Your task to perform on an android device: toggle notifications settings in the gmail app Image 0: 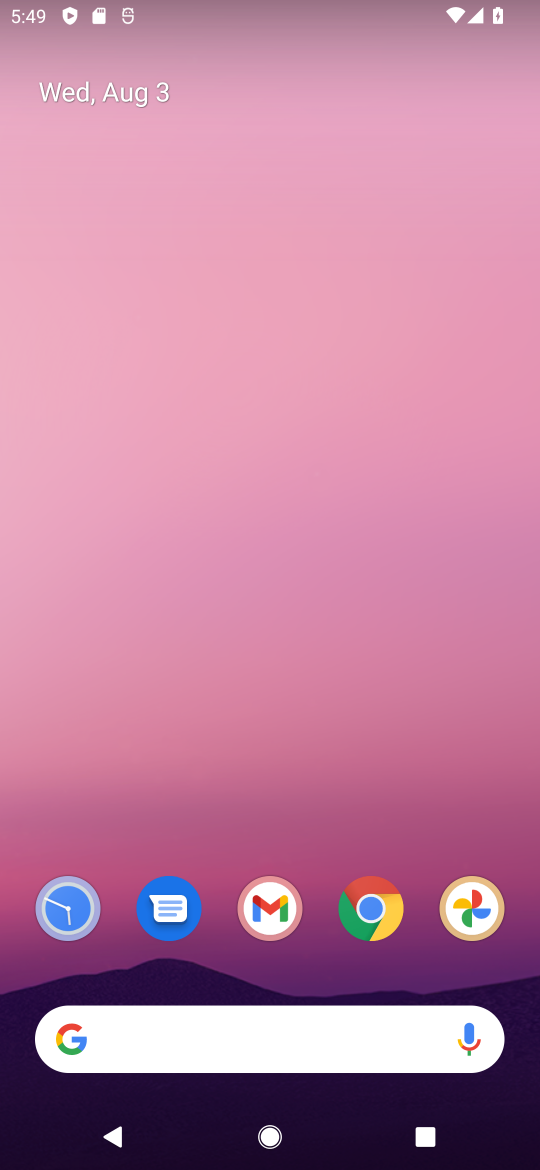
Step 0: drag from (250, 867) to (268, 38)
Your task to perform on an android device: toggle notifications settings in the gmail app Image 1: 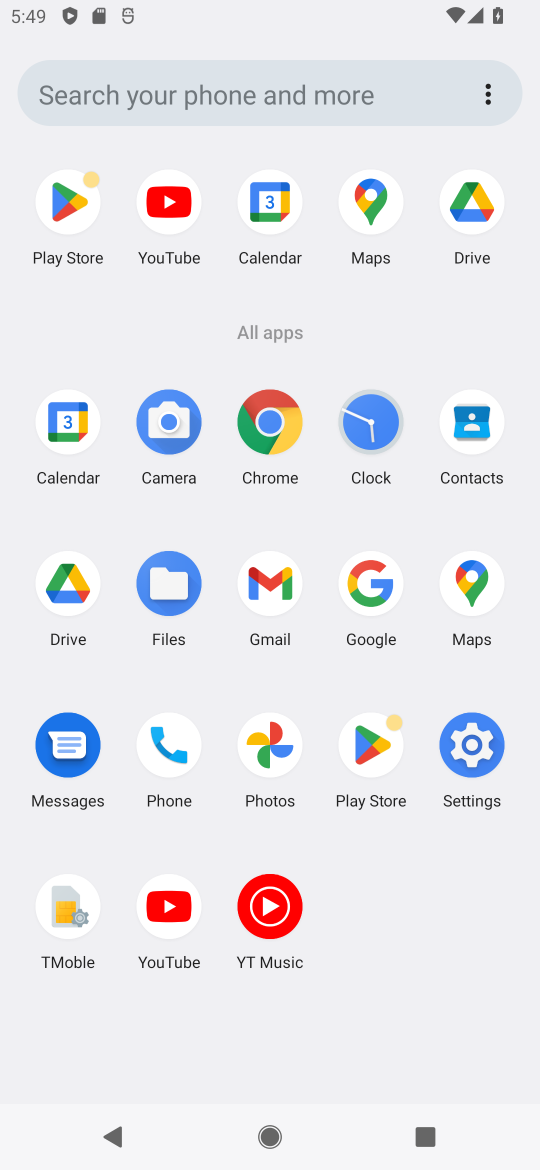
Step 1: click (281, 610)
Your task to perform on an android device: toggle notifications settings in the gmail app Image 2: 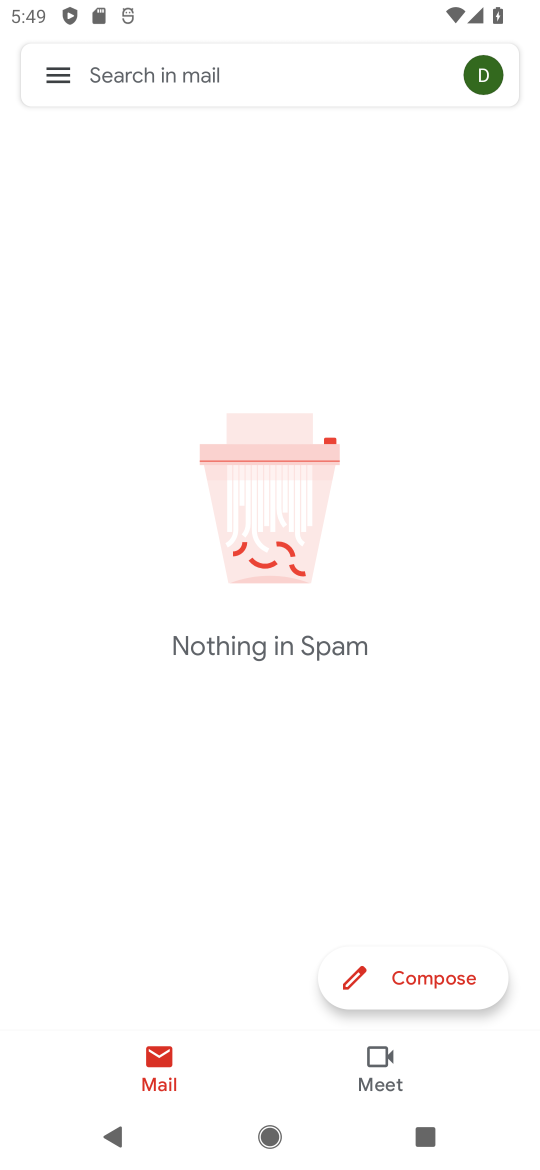
Step 2: click (60, 89)
Your task to perform on an android device: toggle notifications settings in the gmail app Image 3: 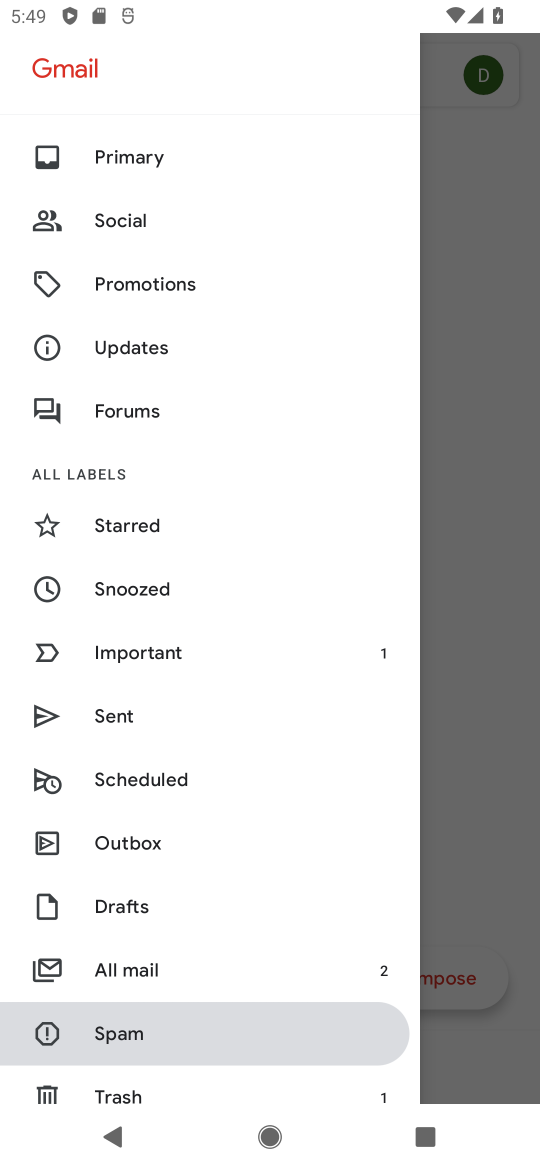
Step 3: drag from (167, 944) to (167, 490)
Your task to perform on an android device: toggle notifications settings in the gmail app Image 4: 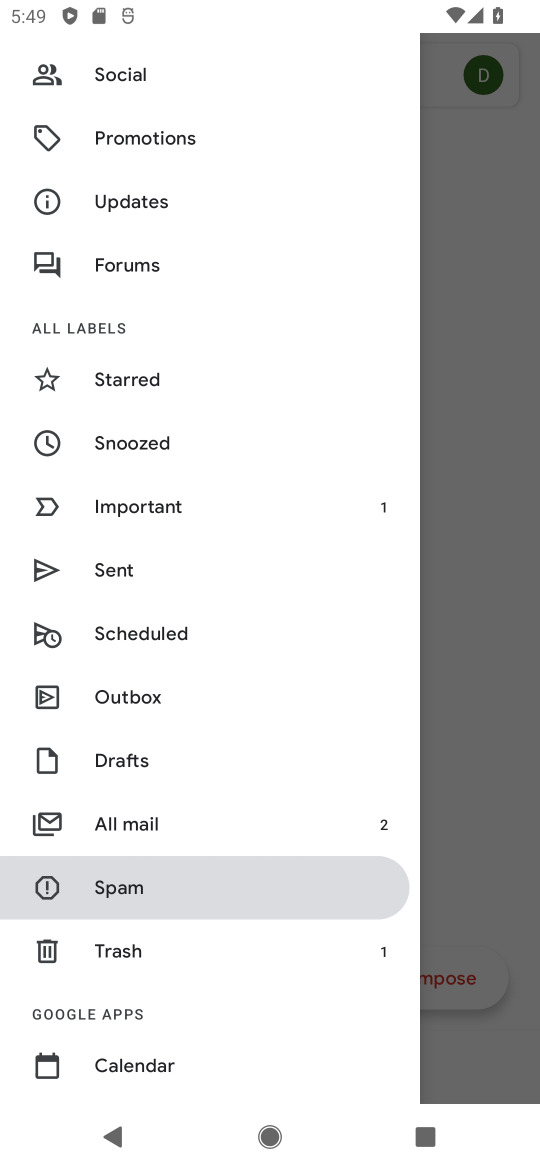
Step 4: drag from (132, 1023) to (149, 257)
Your task to perform on an android device: toggle notifications settings in the gmail app Image 5: 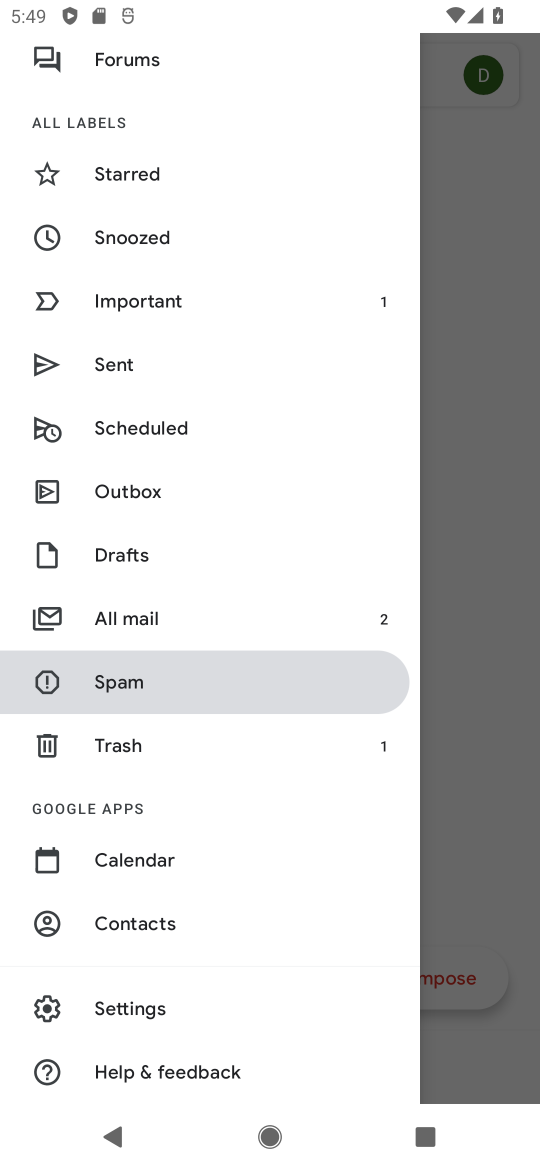
Step 5: click (116, 1005)
Your task to perform on an android device: toggle notifications settings in the gmail app Image 6: 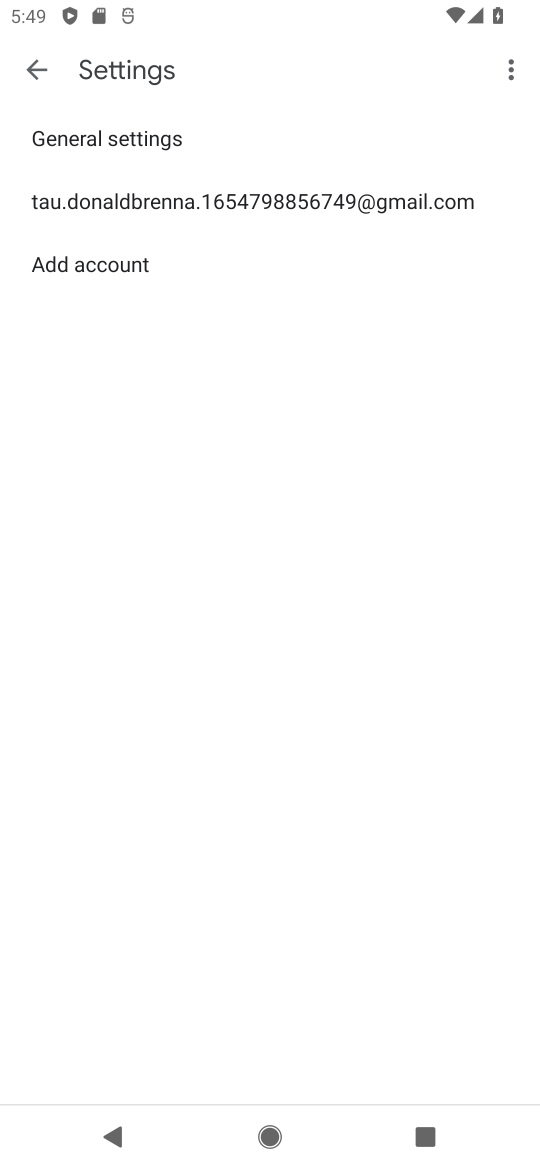
Step 6: click (137, 142)
Your task to perform on an android device: toggle notifications settings in the gmail app Image 7: 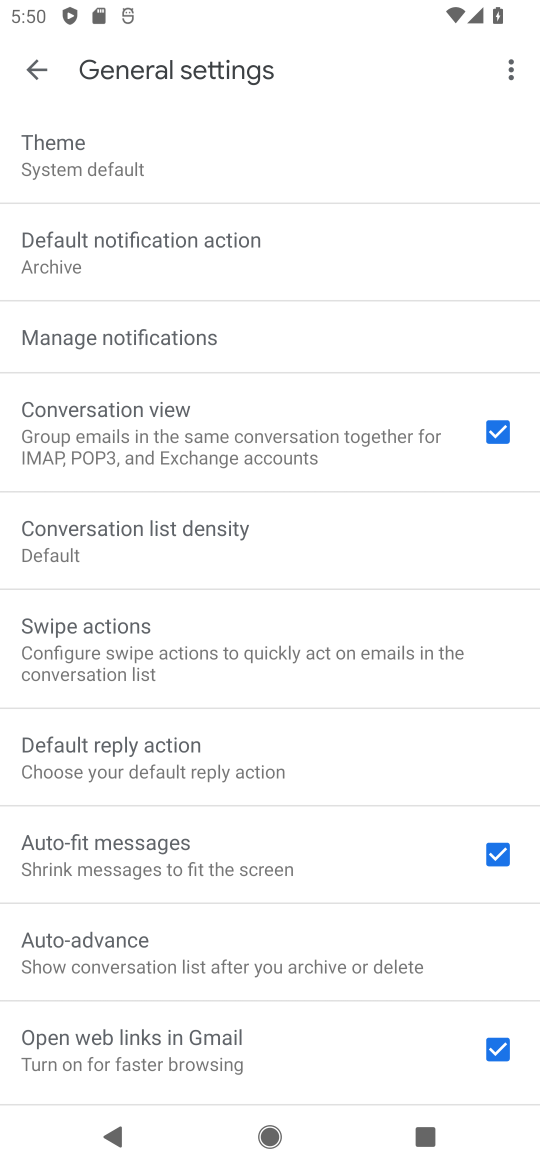
Step 7: click (158, 348)
Your task to perform on an android device: toggle notifications settings in the gmail app Image 8: 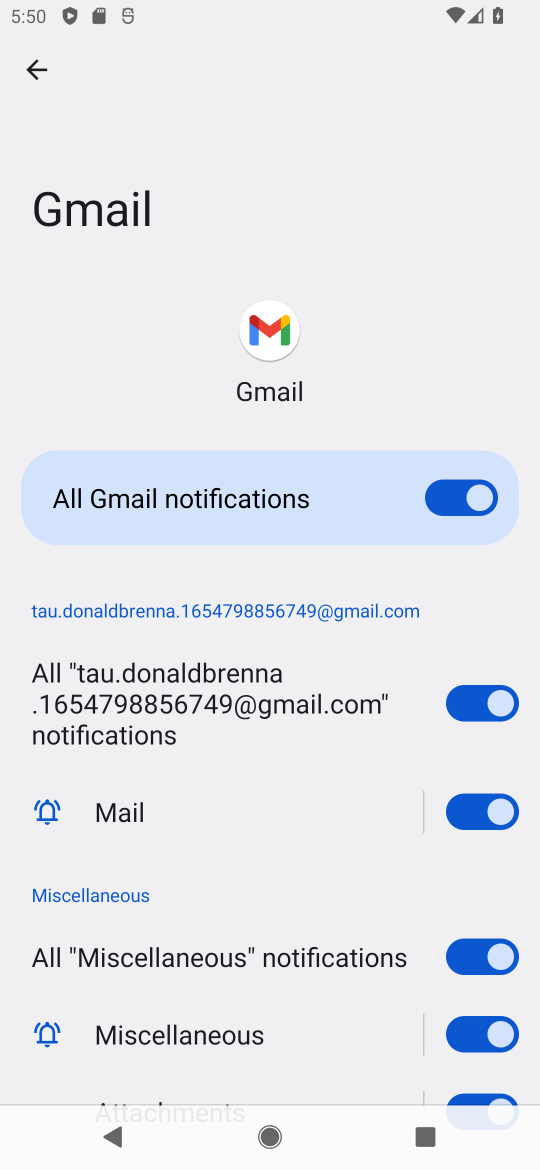
Step 8: click (374, 475)
Your task to perform on an android device: toggle notifications settings in the gmail app Image 9: 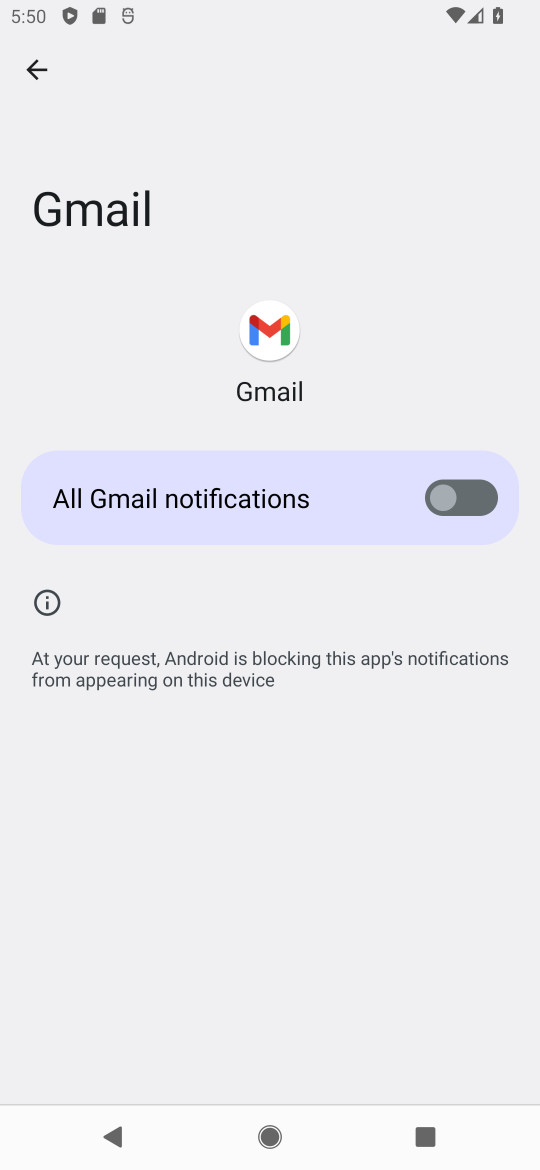
Step 9: task complete